Your task to perform on an android device: toggle improve location accuracy Image 0: 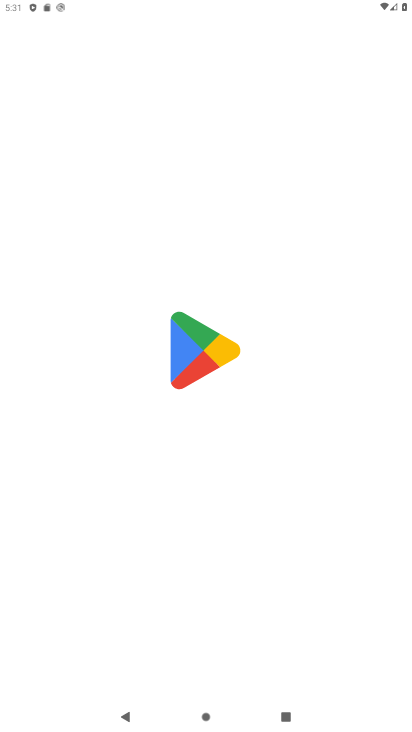
Step 0: press home button
Your task to perform on an android device: toggle improve location accuracy Image 1: 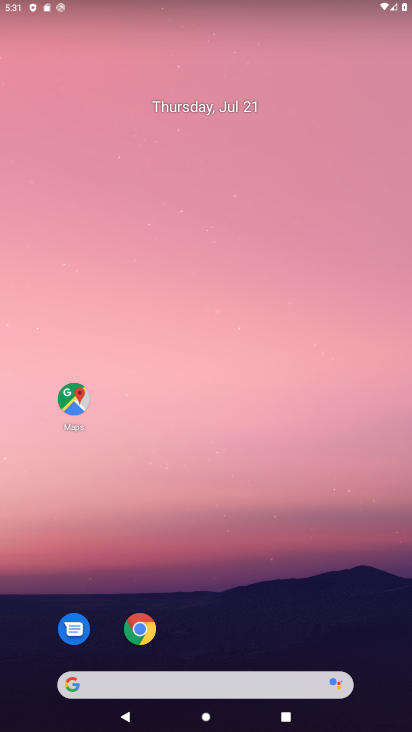
Step 1: drag from (286, 609) to (208, 124)
Your task to perform on an android device: toggle improve location accuracy Image 2: 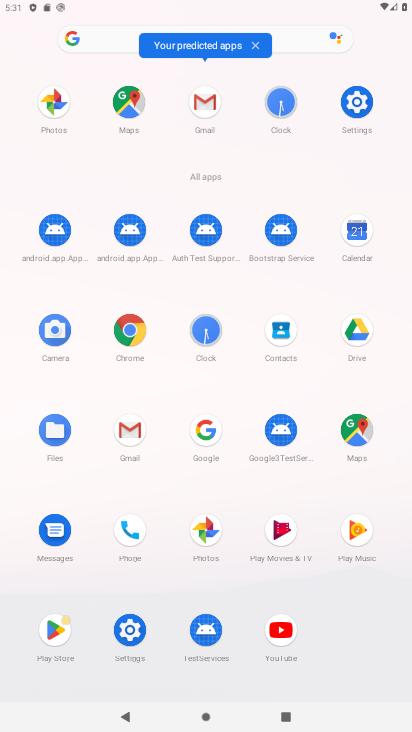
Step 2: click (363, 102)
Your task to perform on an android device: toggle improve location accuracy Image 3: 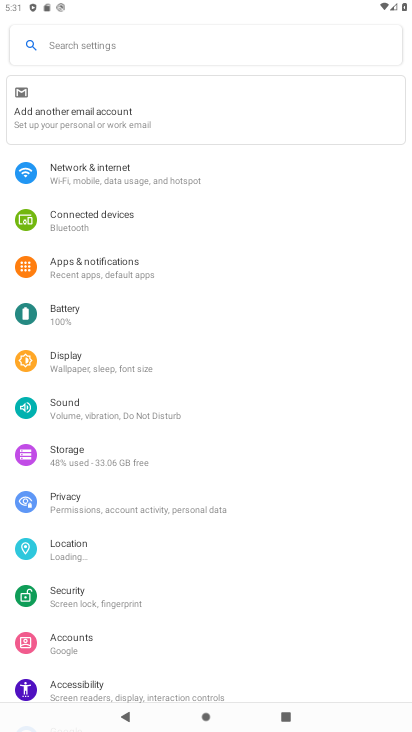
Step 3: click (122, 550)
Your task to perform on an android device: toggle improve location accuracy Image 4: 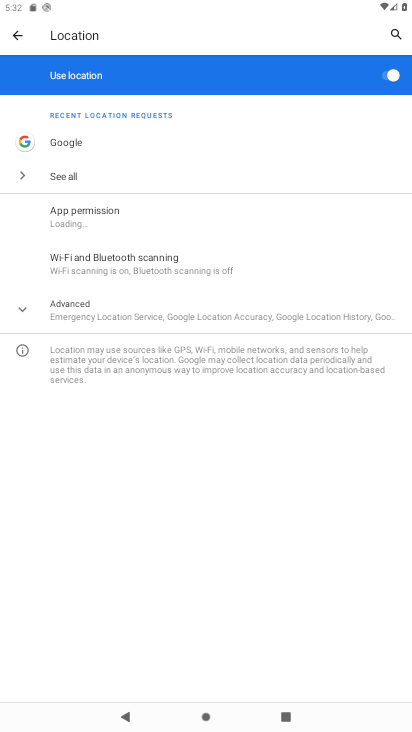
Step 4: click (173, 310)
Your task to perform on an android device: toggle improve location accuracy Image 5: 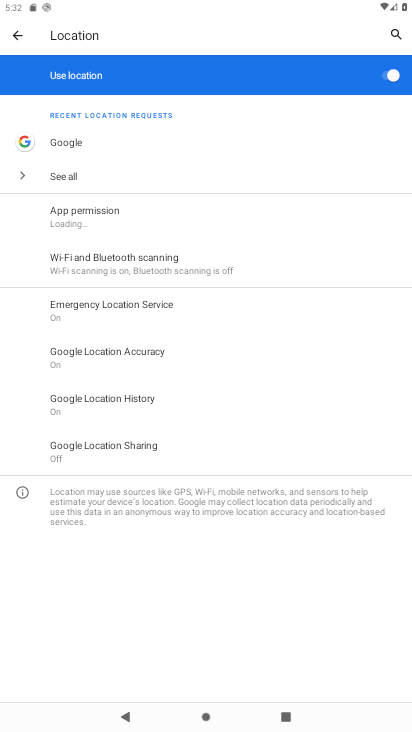
Step 5: click (176, 353)
Your task to perform on an android device: toggle improve location accuracy Image 6: 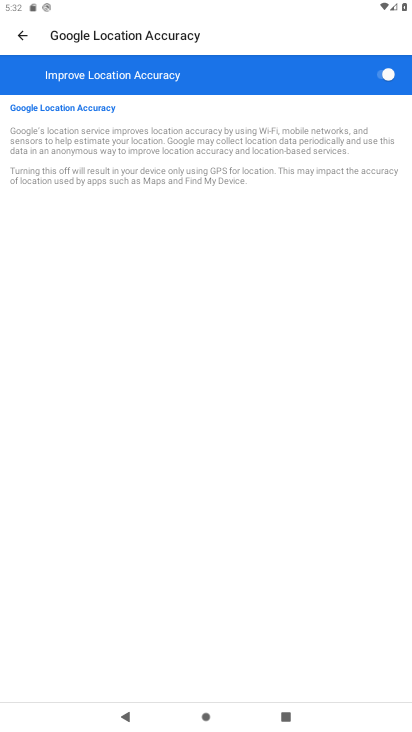
Step 6: click (381, 74)
Your task to perform on an android device: toggle improve location accuracy Image 7: 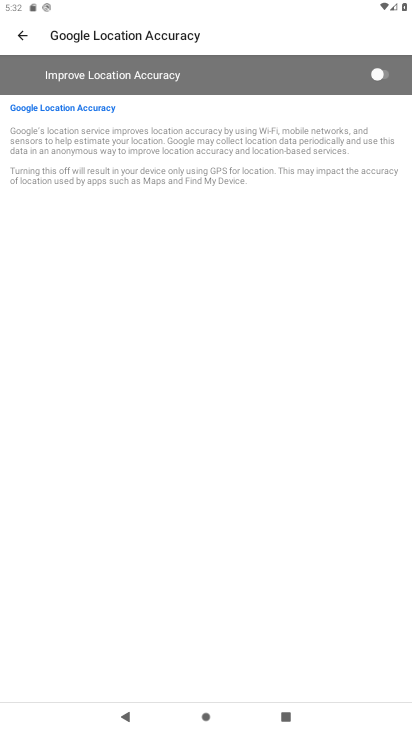
Step 7: task complete